Your task to perform on an android device: toggle location history Image 0: 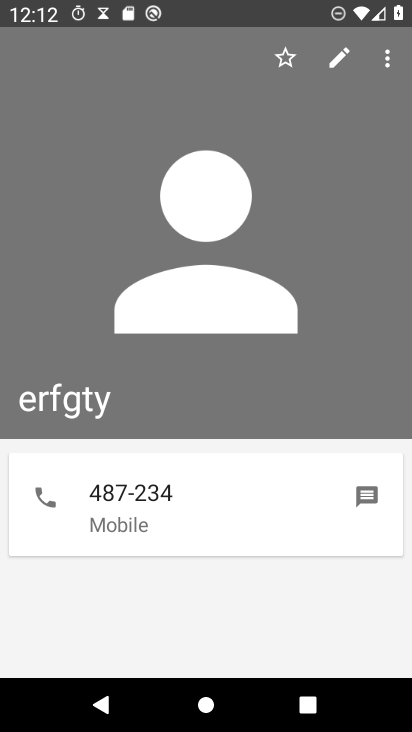
Step 0: press home button
Your task to perform on an android device: toggle location history Image 1: 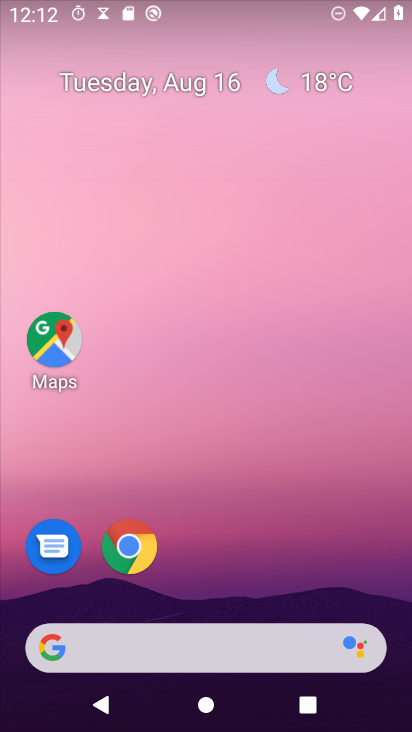
Step 1: drag from (250, 611) to (289, 73)
Your task to perform on an android device: toggle location history Image 2: 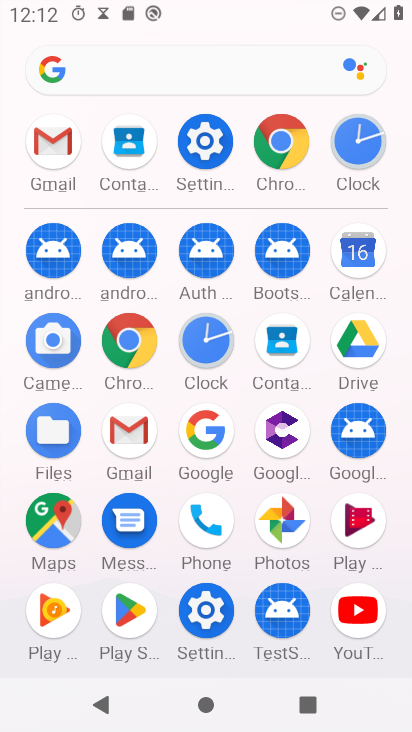
Step 2: click (205, 133)
Your task to perform on an android device: toggle location history Image 3: 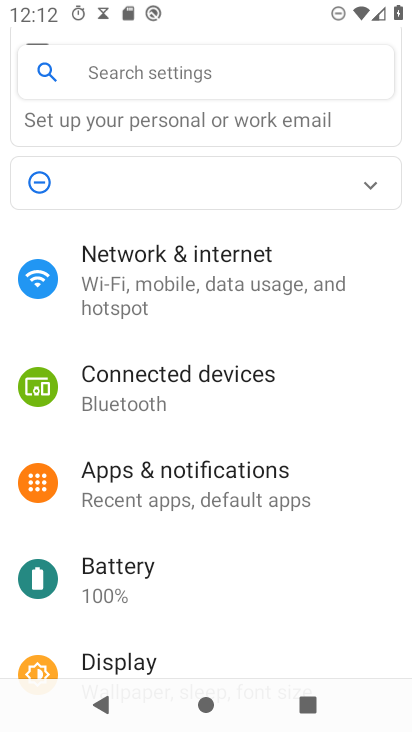
Step 3: drag from (132, 597) to (129, 198)
Your task to perform on an android device: toggle location history Image 4: 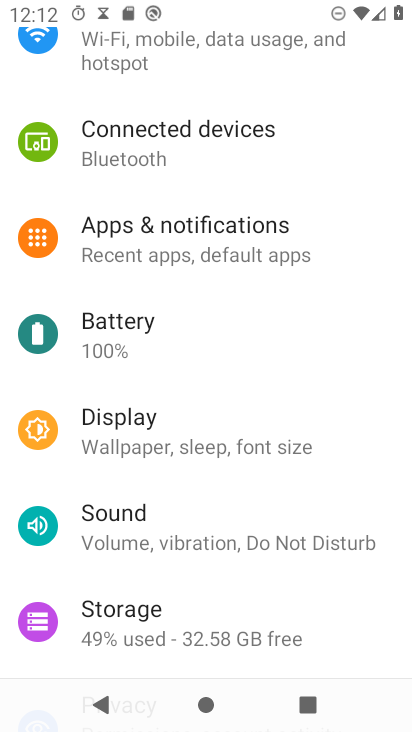
Step 4: drag from (117, 511) to (125, 332)
Your task to perform on an android device: toggle location history Image 5: 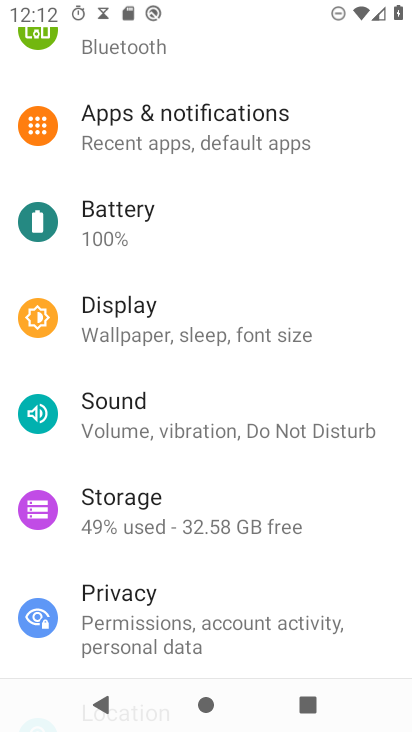
Step 5: drag from (104, 642) to (171, 241)
Your task to perform on an android device: toggle location history Image 6: 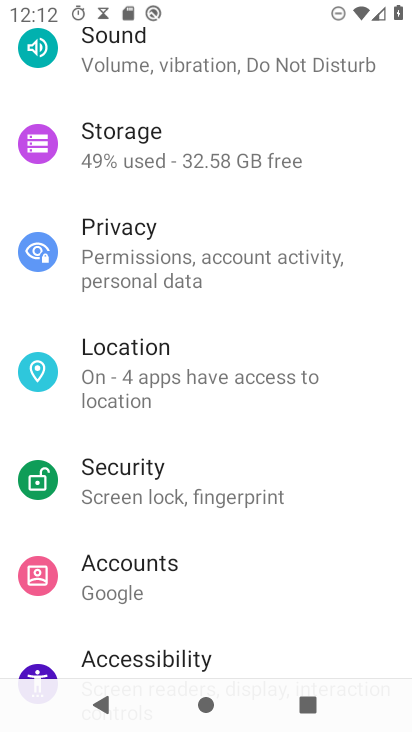
Step 6: click (115, 355)
Your task to perform on an android device: toggle location history Image 7: 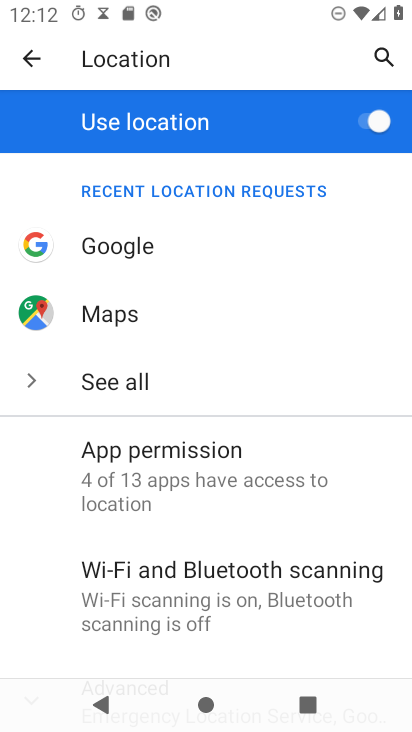
Step 7: drag from (138, 628) to (150, 294)
Your task to perform on an android device: toggle location history Image 8: 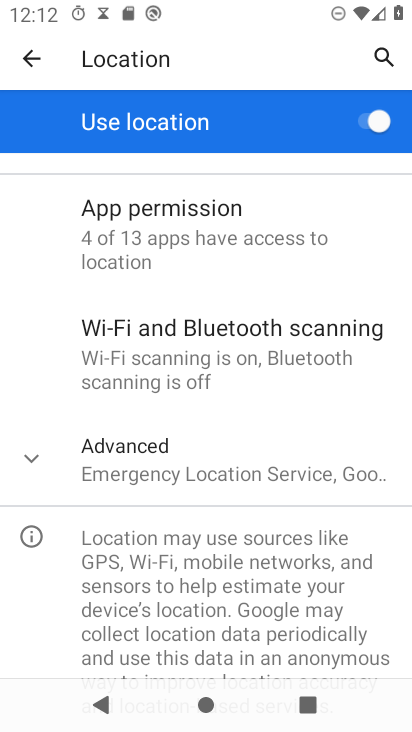
Step 8: click (159, 485)
Your task to perform on an android device: toggle location history Image 9: 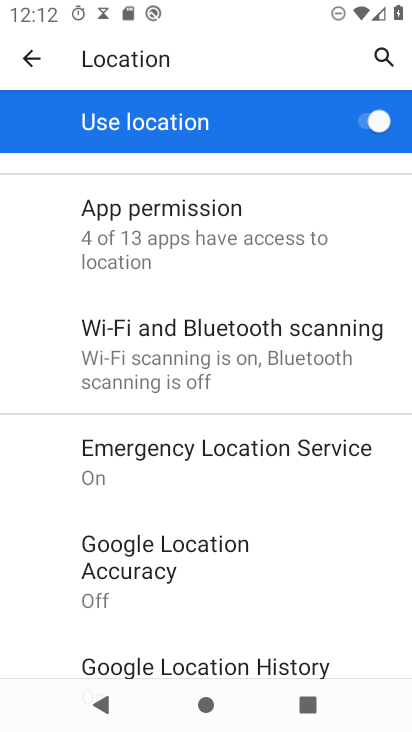
Step 9: drag from (147, 658) to (126, 420)
Your task to perform on an android device: toggle location history Image 10: 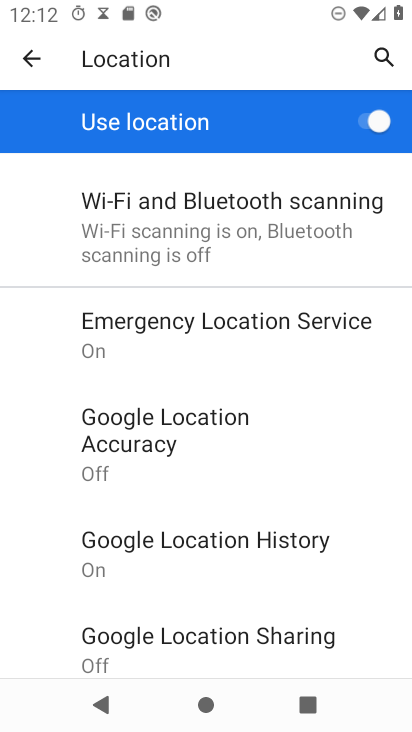
Step 10: click (199, 529)
Your task to perform on an android device: toggle location history Image 11: 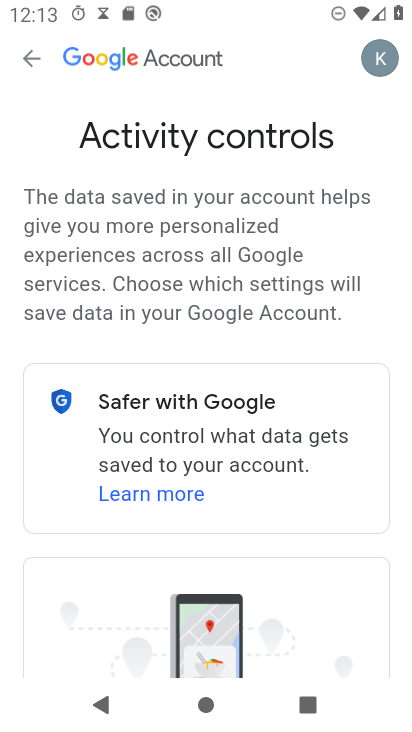
Step 11: drag from (208, 615) to (183, 210)
Your task to perform on an android device: toggle location history Image 12: 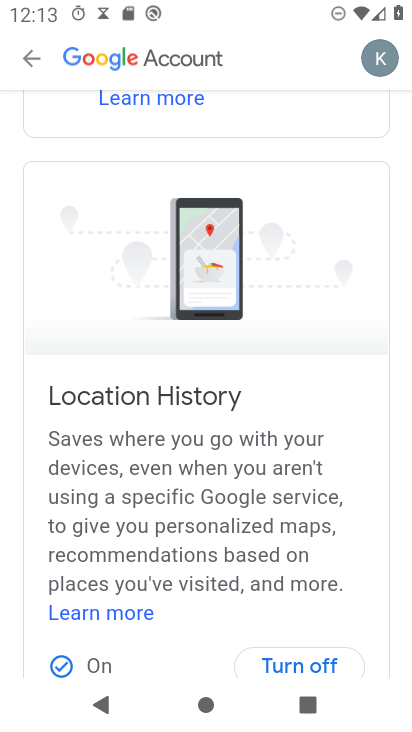
Step 12: drag from (214, 645) to (178, 290)
Your task to perform on an android device: toggle location history Image 13: 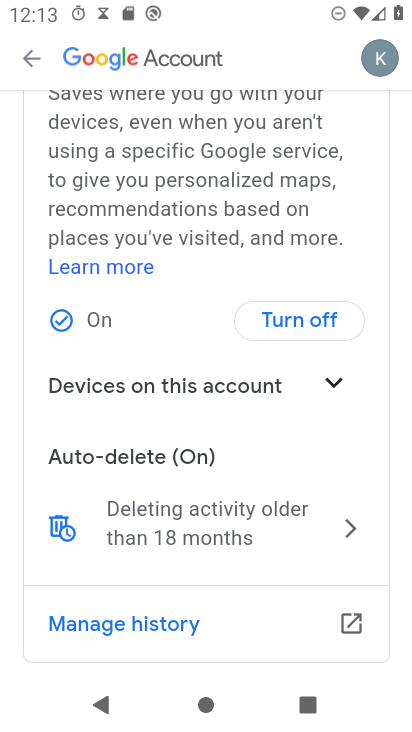
Step 13: click (301, 323)
Your task to perform on an android device: toggle location history Image 14: 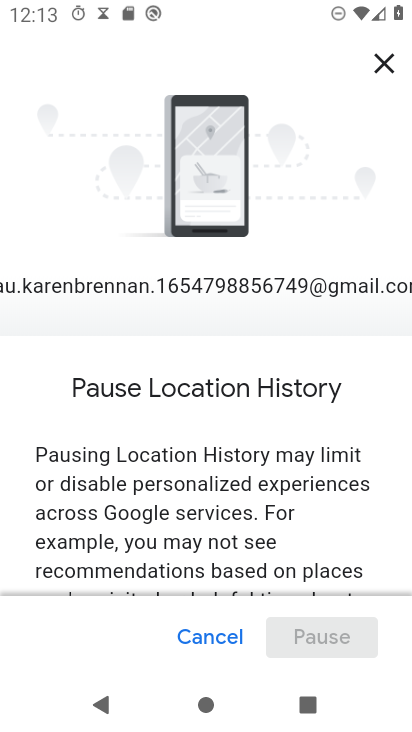
Step 14: drag from (295, 571) to (263, 348)
Your task to perform on an android device: toggle location history Image 15: 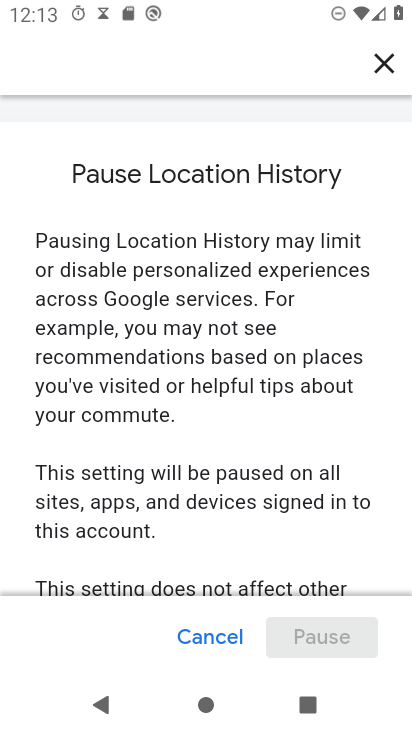
Step 15: drag from (264, 516) to (274, 286)
Your task to perform on an android device: toggle location history Image 16: 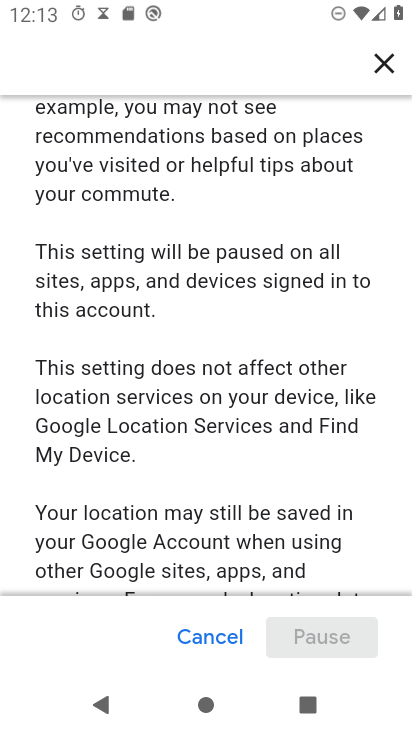
Step 16: drag from (289, 548) to (232, 92)
Your task to perform on an android device: toggle location history Image 17: 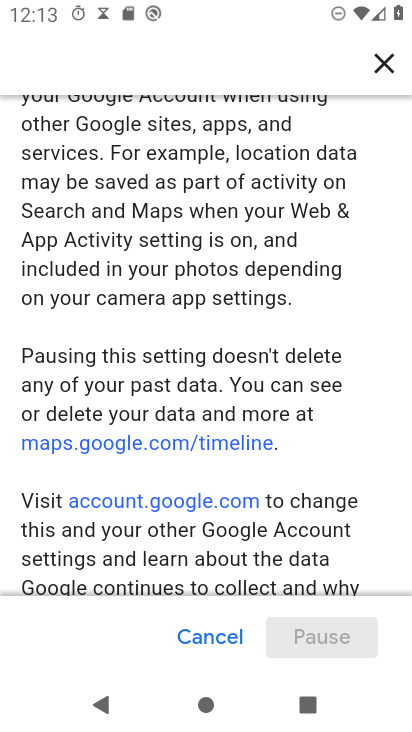
Step 17: drag from (321, 552) to (244, 124)
Your task to perform on an android device: toggle location history Image 18: 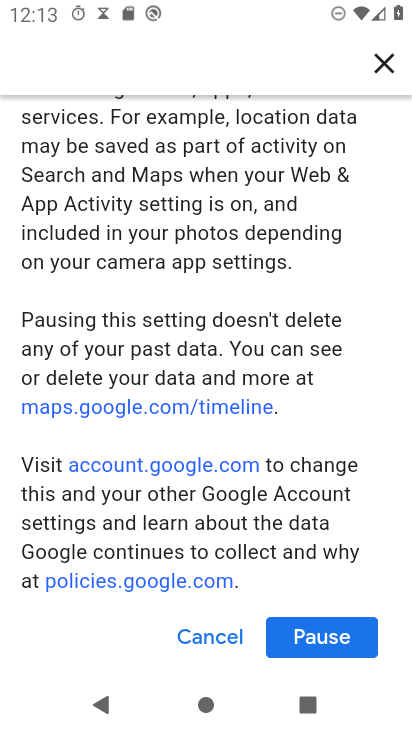
Step 18: click (326, 638)
Your task to perform on an android device: toggle location history Image 19: 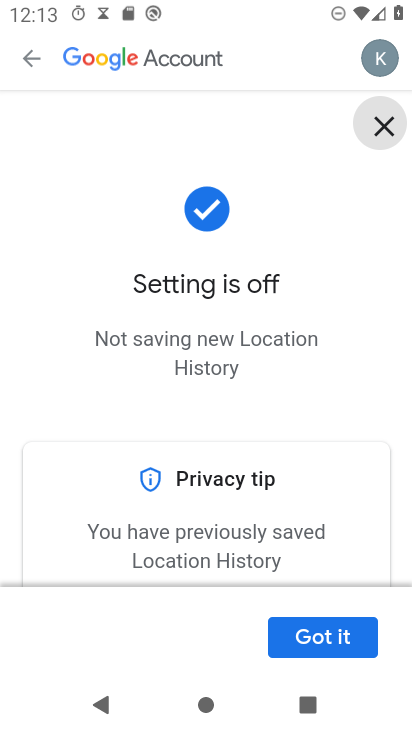
Step 19: click (319, 637)
Your task to perform on an android device: toggle location history Image 20: 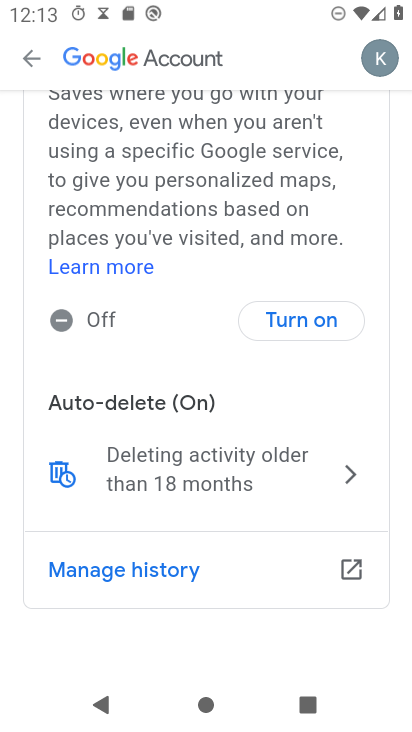
Step 20: task complete